Your task to perform on an android device: allow notifications from all sites in the chrome app Image 0: 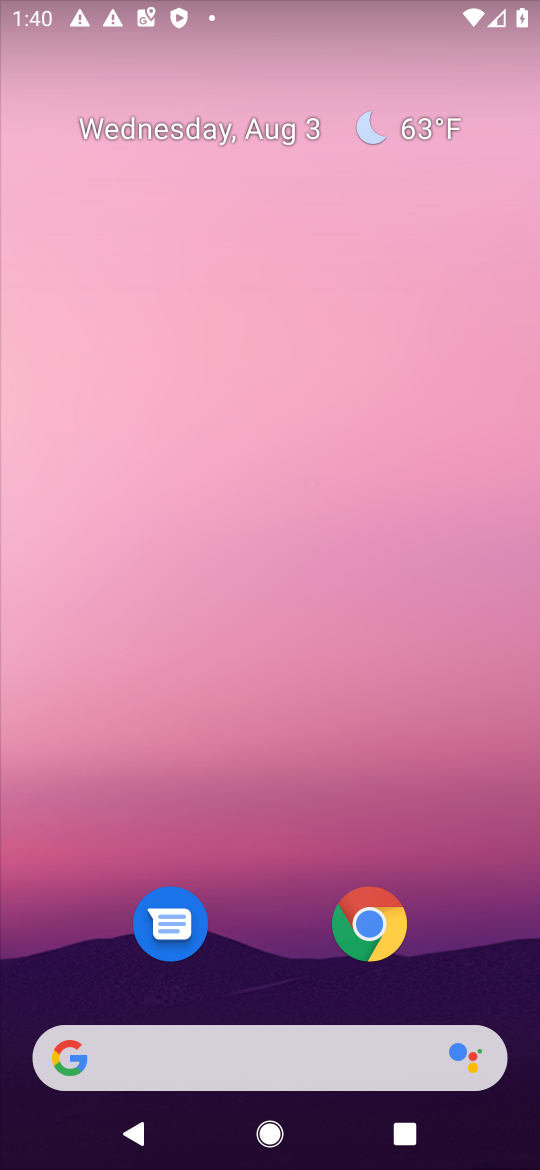
Step 0: press home button
Your task to perform on an android device: allow notifications from all sites in the chrome app Image 1: 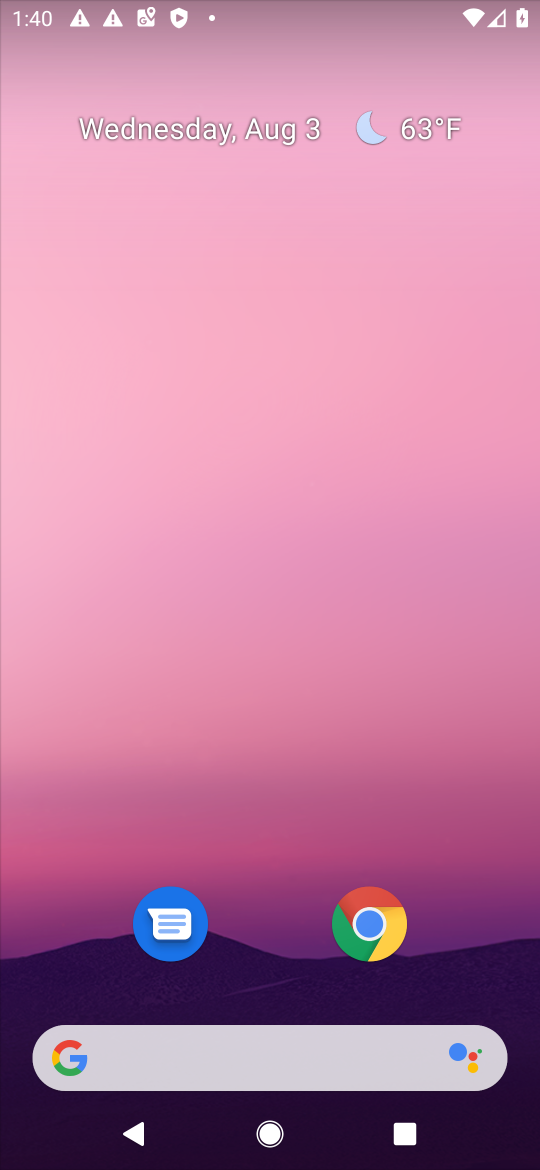
Step 1: click (367, 913)
Your task to perform on an android device: allow notifications from all sites in the chrome app Image 2: 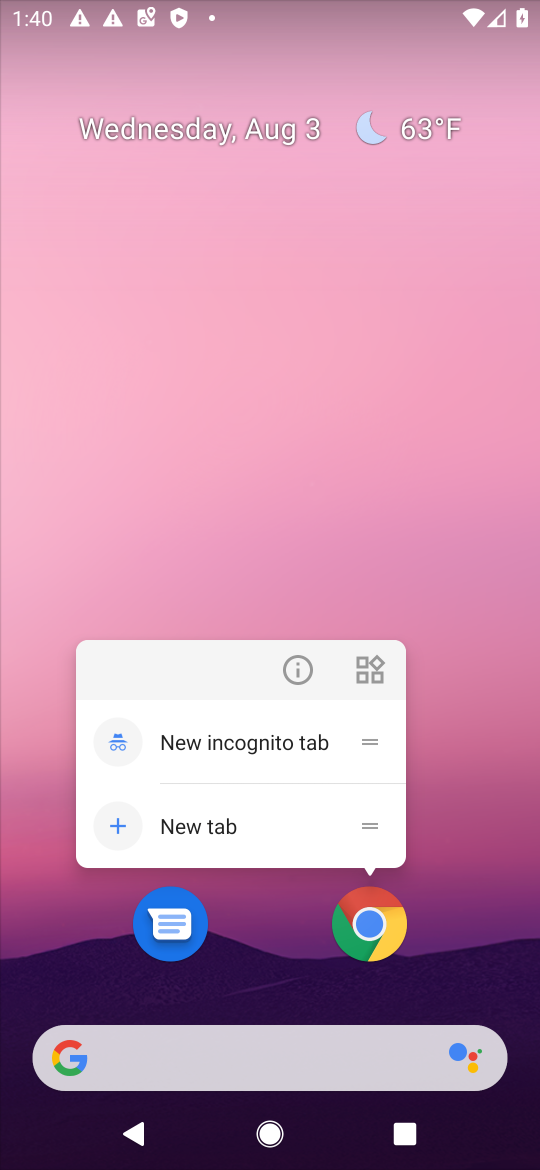
Step 2: click (367, 919)
Your task to perform on an android device: allow notifications from all sites in the chrome app Image 3: 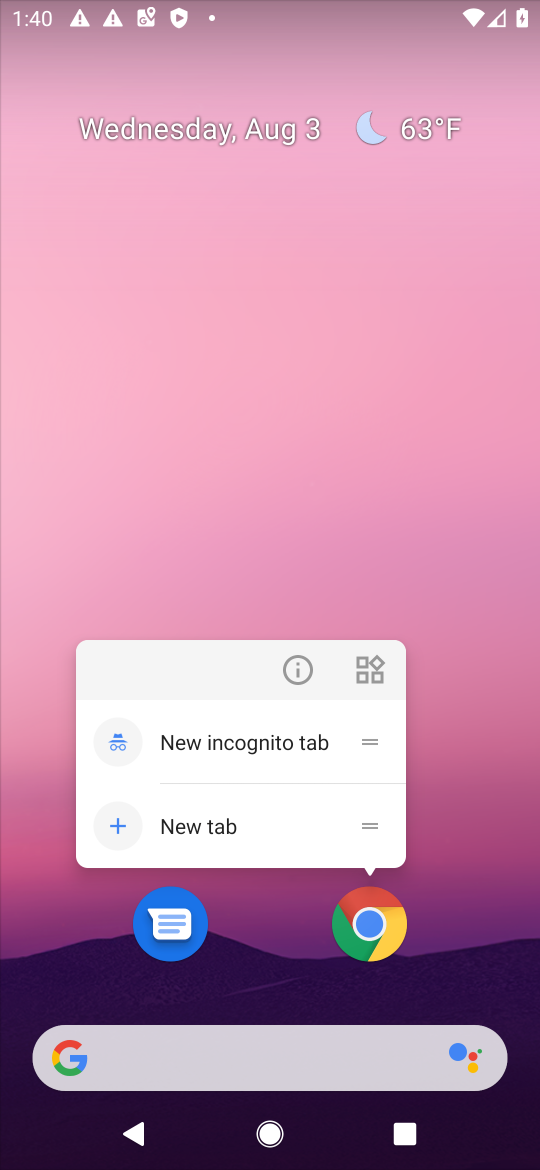
Step 3: click (363, 913)
Your task to perform on an android device: allow notifications from all sites in the chrome app Image 4: 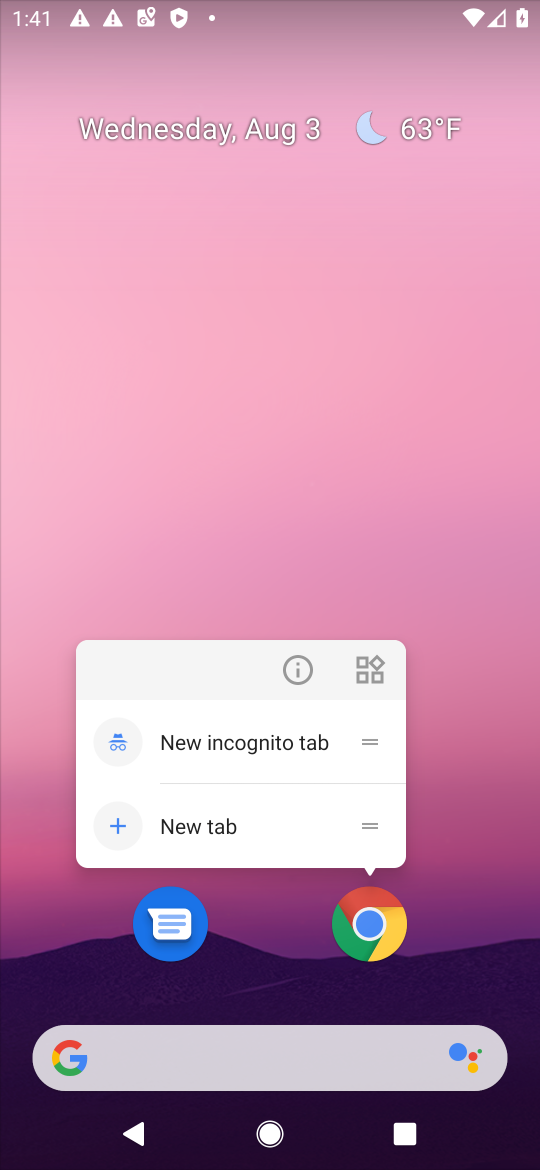
Step 4: click (368, 912)
Your task to perform on an android device: allow notifications from all sites in the chrome app Image 5: 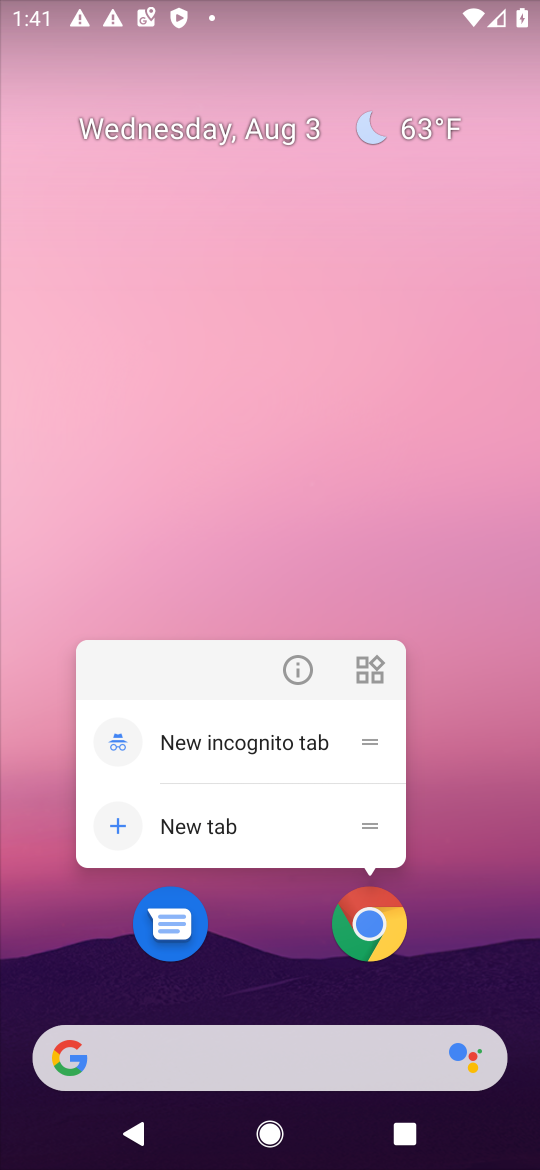
Step 5: click (368, 922)
Your task to perform on an android device: allow notifications from all sites in the chrome app Image 6: 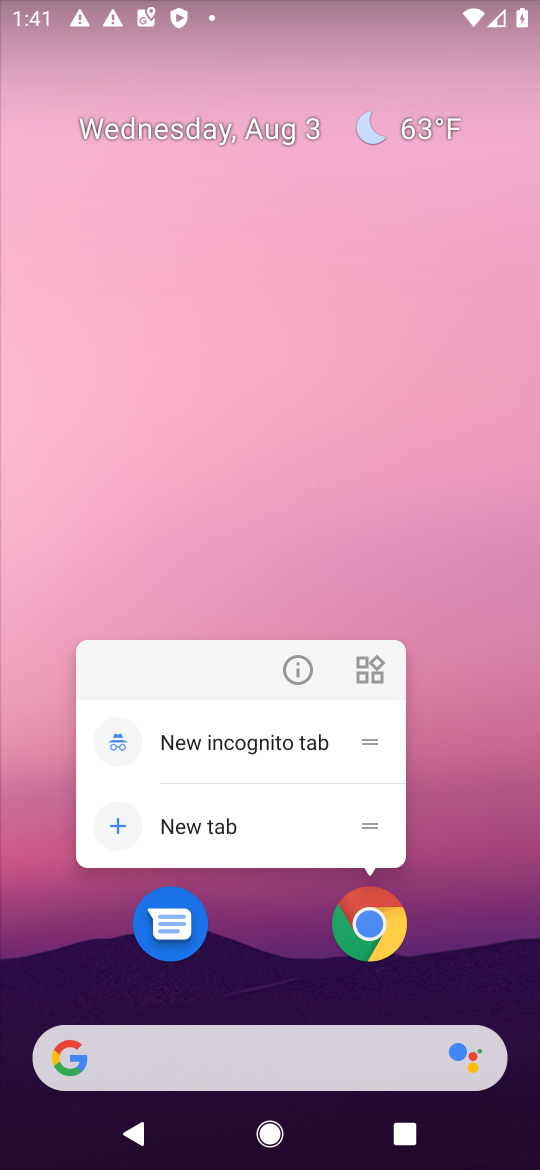
Step 6: click (429, 1003)
Your task to perform on an android device: allow notifications from all sites in the chrome app Image 7: 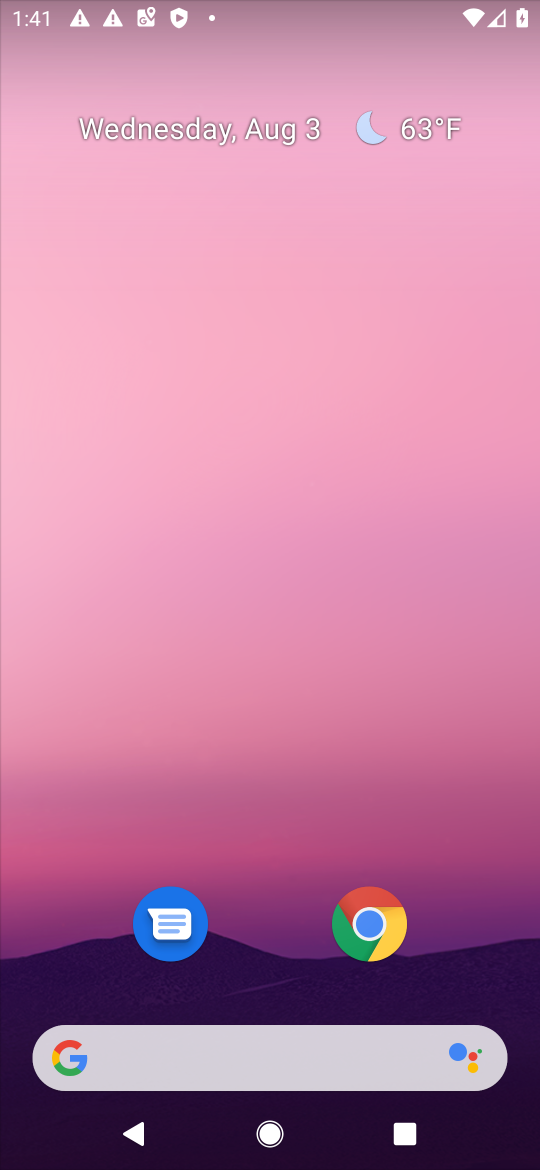
Step 7: drag from (460, 988) to (461, 48)
Your task to perform on an android device: allow notifications from all sites in the chrome app Image 8: 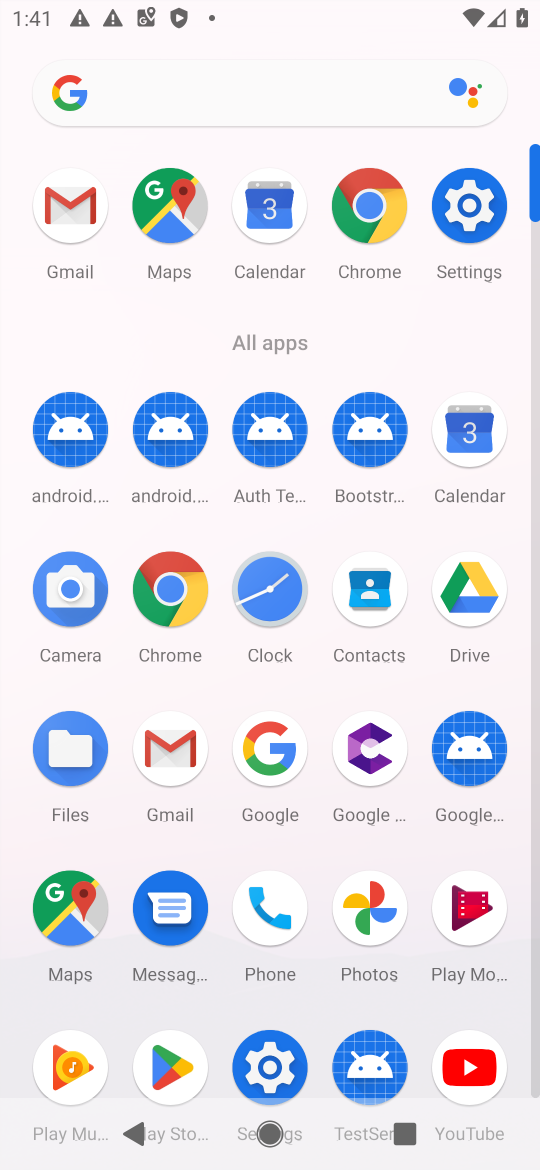
Step 8: click (163, 581)
Your task to perform on an android device: allow notifications from all sites in the chrome app Image 9: 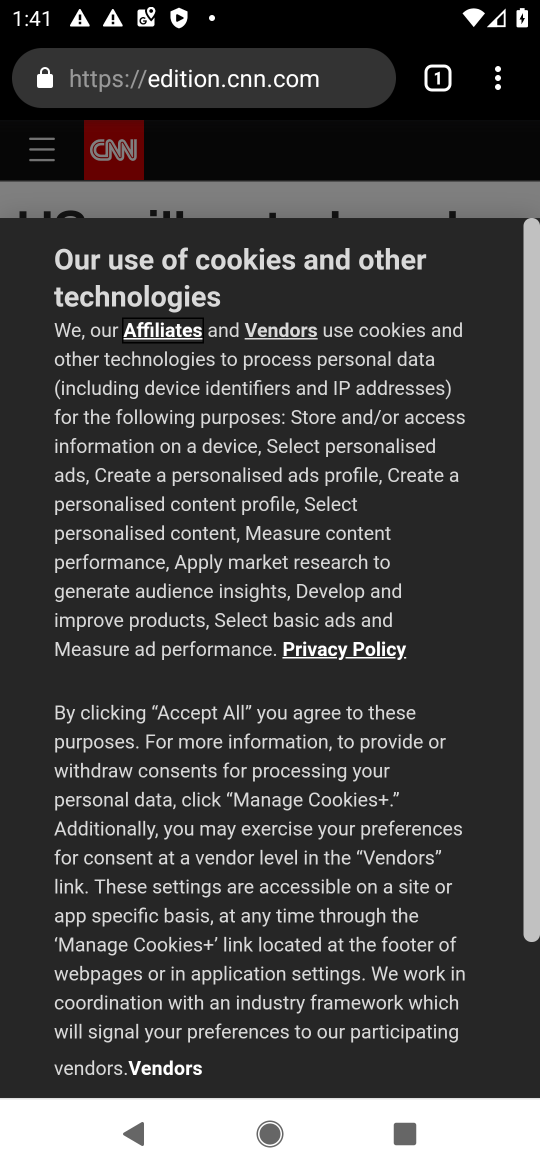
Step 9: click (501, 72)
Your task to perform on an android device: allow notifications from all sites in the chrome app Image 10: 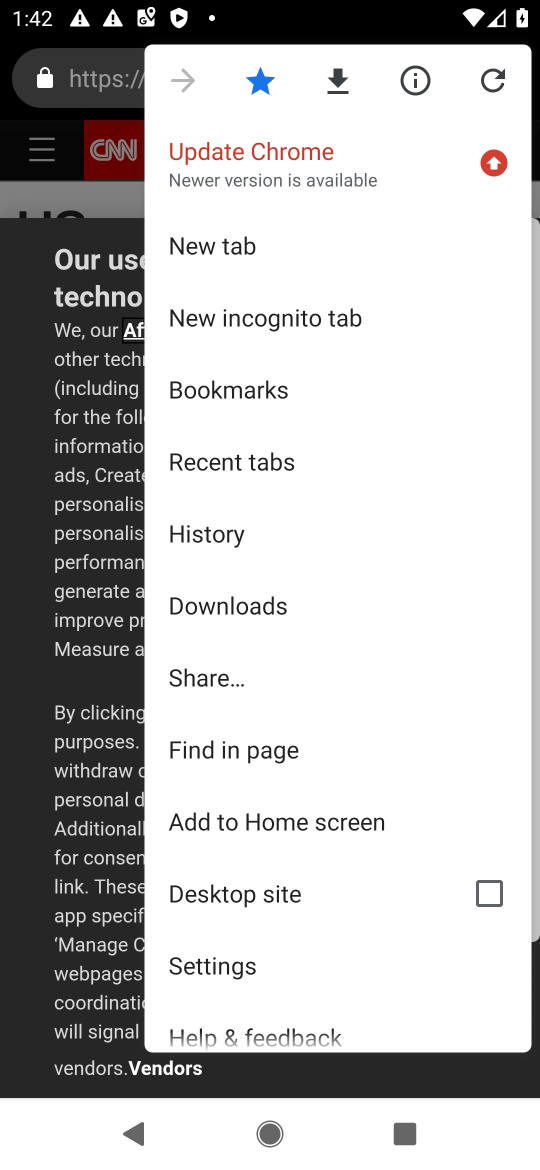
Step 10: click (286, 961)
Your task to perform on an android device: allow notifications from all sites in the chrome app Image 11: 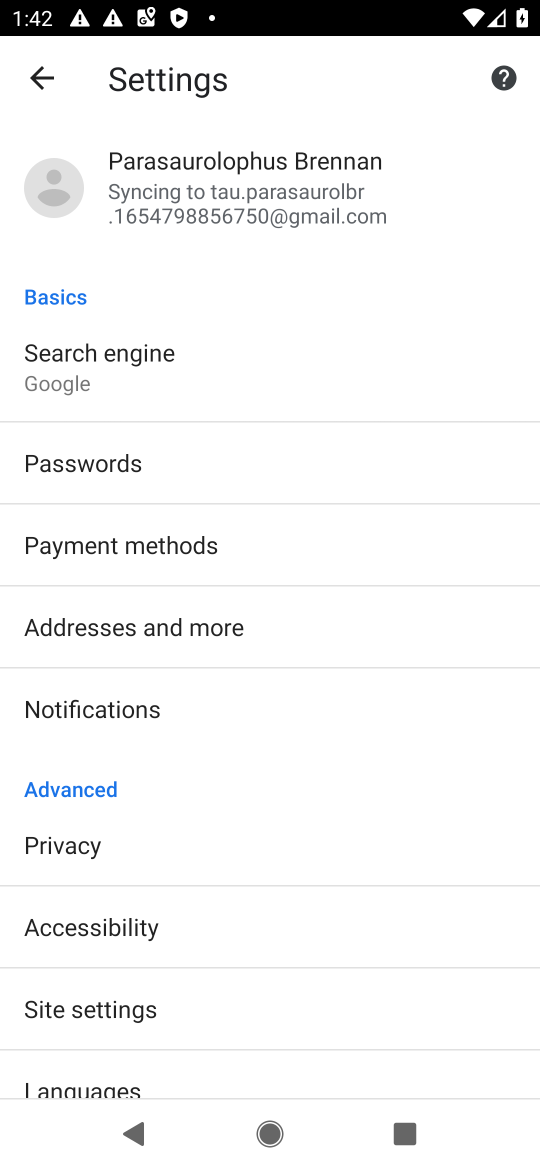
Step 11: click (156, 1005)
Your task to perform on an android device: allow notifications from all sites in the chrome app Image 12: 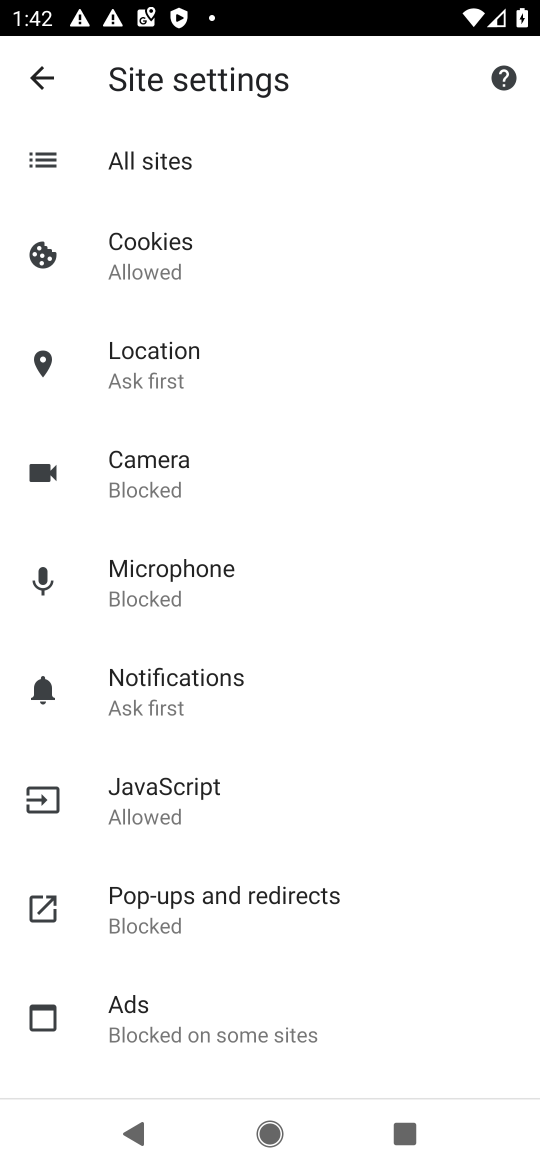
Step 12: click (123, 680)
Your task to perform on an android device: allow notifications from all sites in the chrome app Image 13: 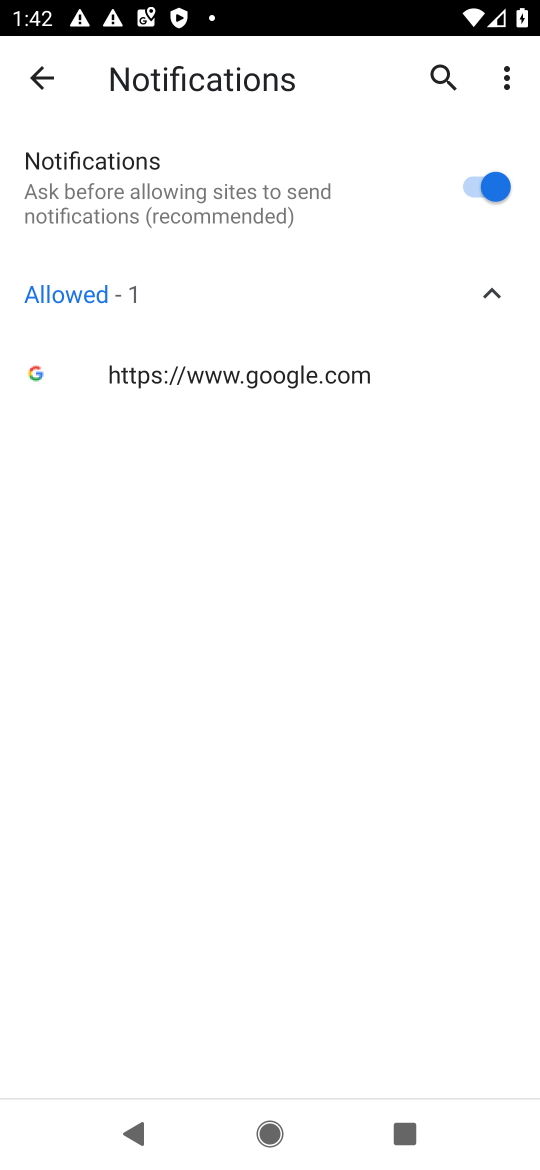
Step 13: task complete